Your task to perform on an android device: add a contact Image 0: 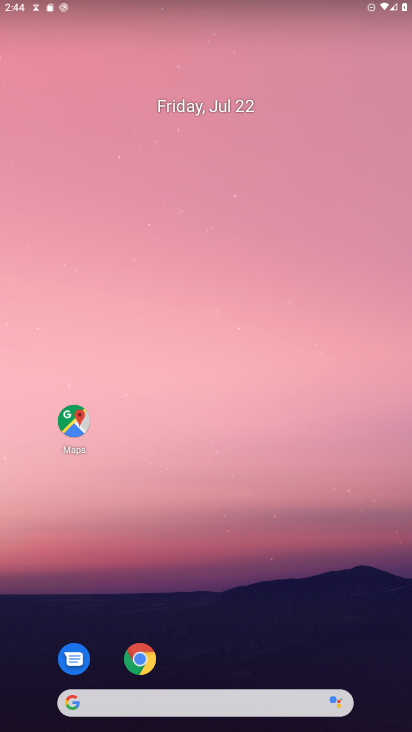
Step 0: drag from (234, 609) to (149, 230)
Your task to perform on an android device: add a contact Image 1: 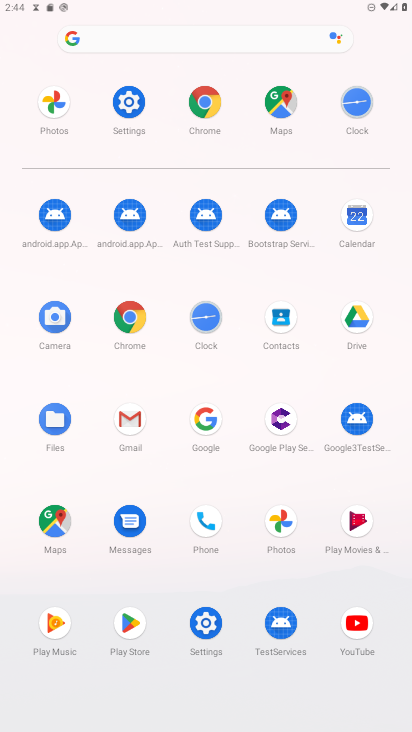
Step 1: click (206, 518)
Your task to perform on an android device: add a contact Image 2: 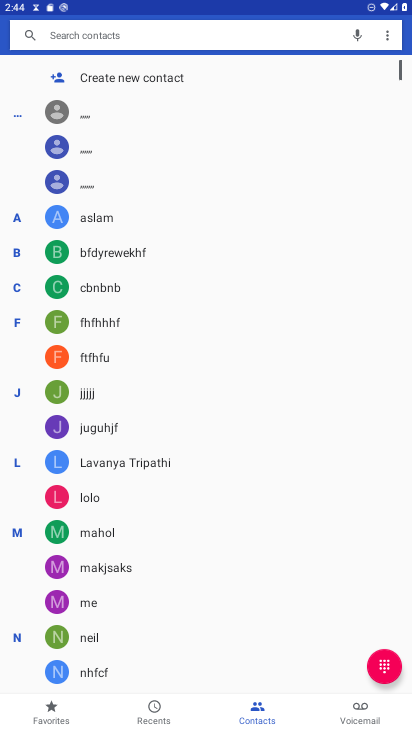
Step 2: click (109, 78)
Your task to perform on an android device: add a contact Image 3: 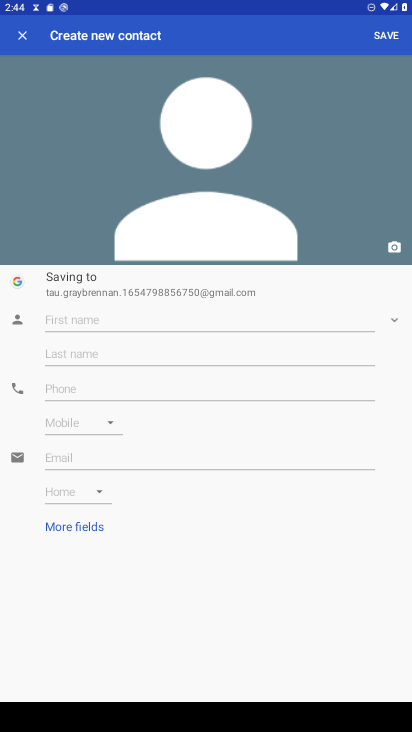
Step 3: click (170, 321)
Your task to perform on an android device: add a contact Image 4: 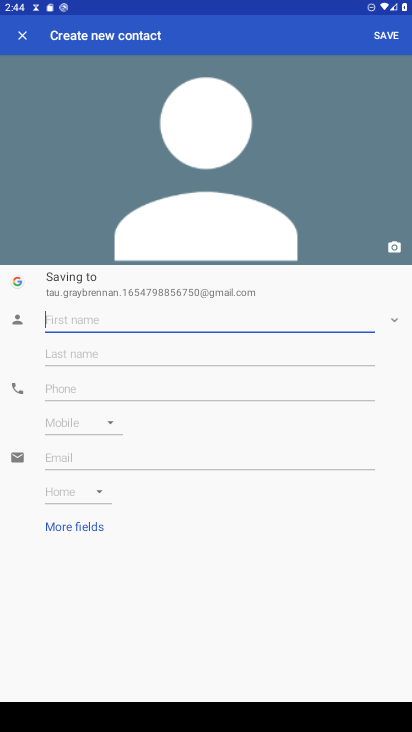
Step 4: type "rtytr"
Your task to perform on an android device: add a contact Image 5: 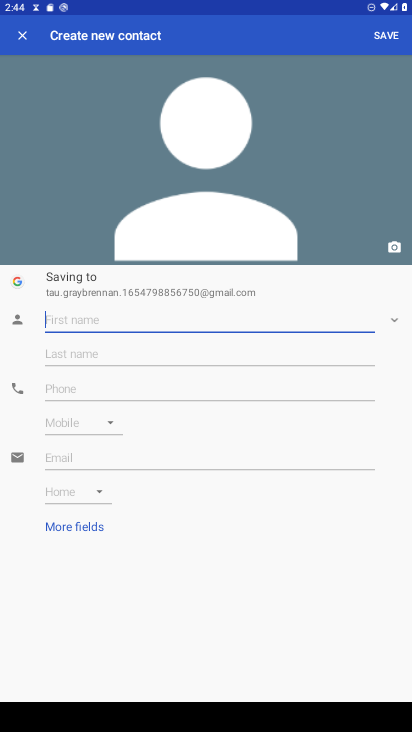
Step 5: click (106, 389)
Your task to perform on an android device: add a contact Image 6: 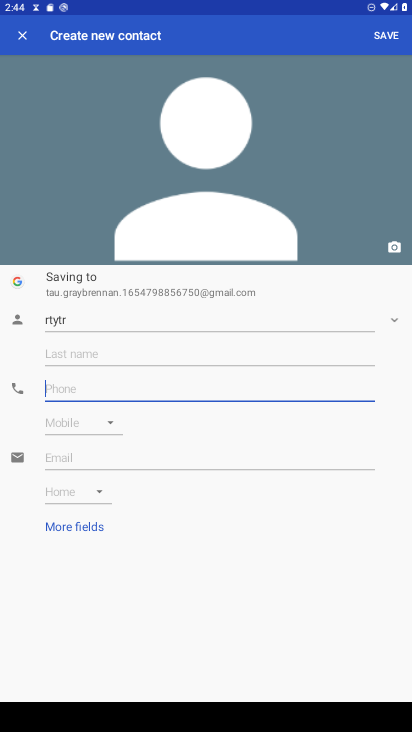
Step 6: type "456787654"
Your task to perform on an android device: add a contact Image 7: 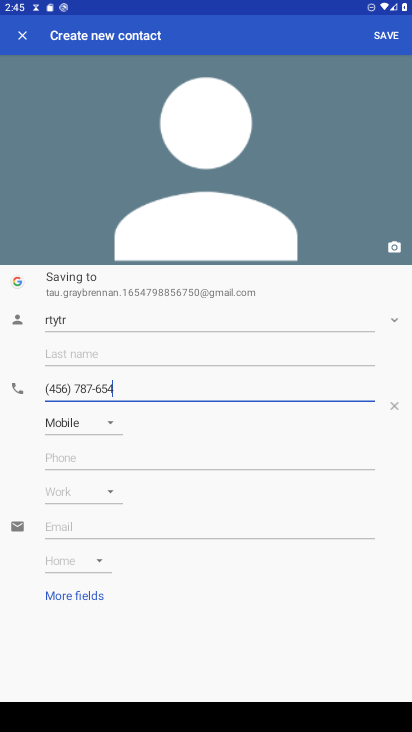
Step 7: click (393, 35)
Your task to perform on an android device: add a contact Image 8: 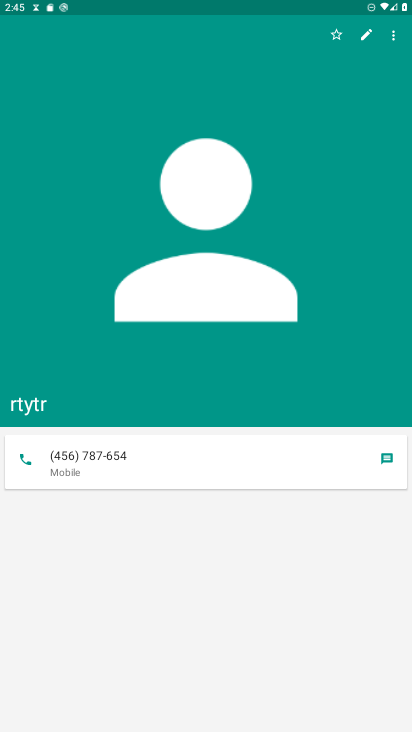
Step 8: task complete